Your task to perform on an android device: change text size in settings app Image 0: 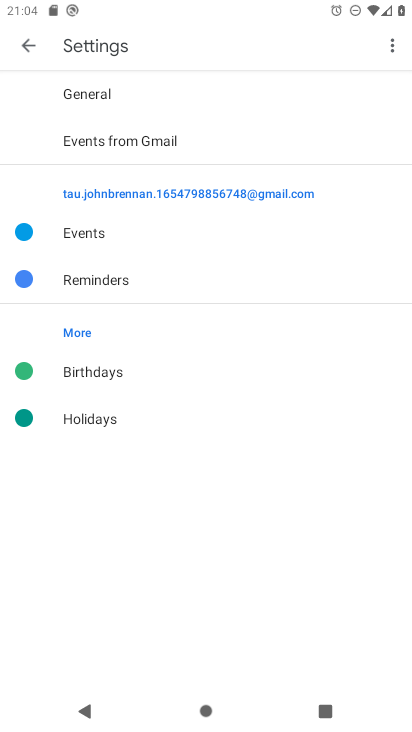
Step 0: press home button
Your task to perform on an android device: change text size in settings app Image 1: 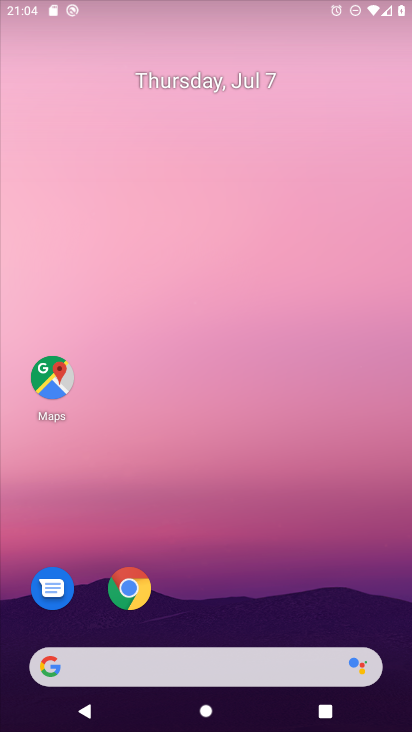
Step 1: drag from (219, 584) to (214, 154)
Your task to perform on an android device: change text size in settings app Image 2: 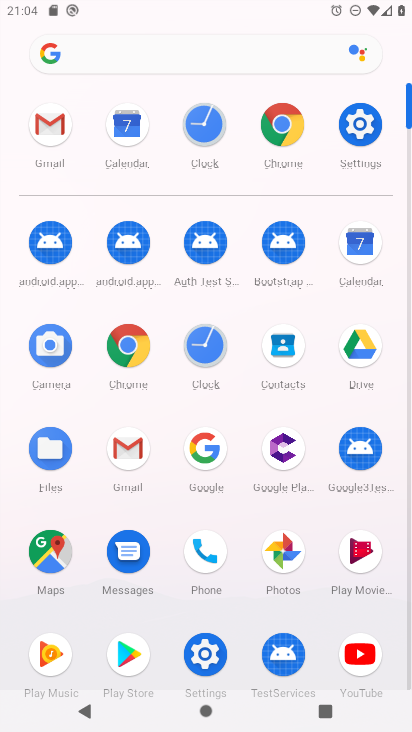
Step 2: click (352, 113)
Your task to perform on an android device: change text size in settings app Image 3: 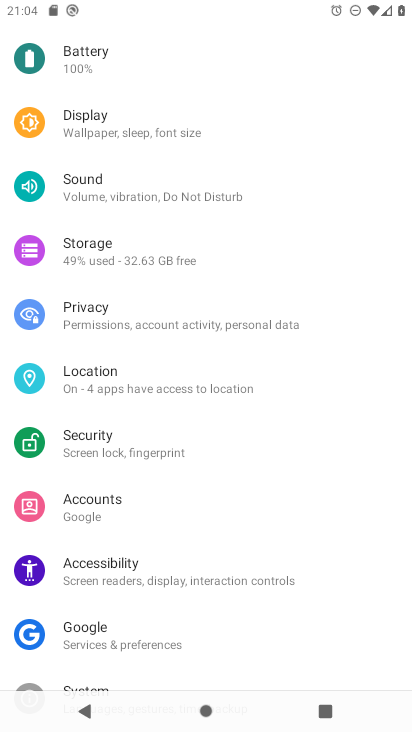
Step 3: drag from (205, 620) to (188, 181)
Your task to perform on an android device: change text size in settings app Image 4: 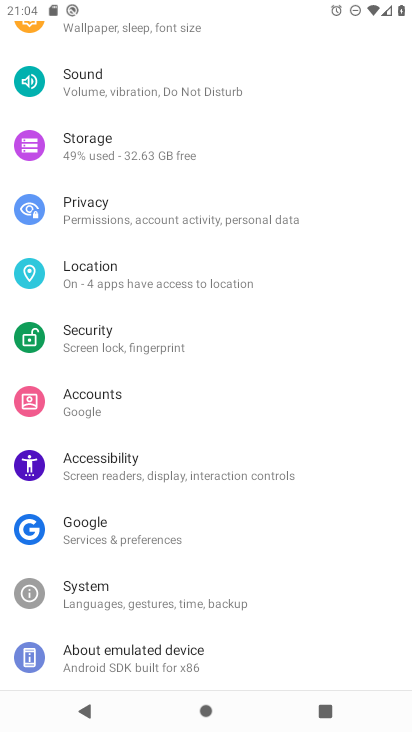
Step 4: click (144, 461)
Your task to perform on an android device: change text size in settings app Image 5: 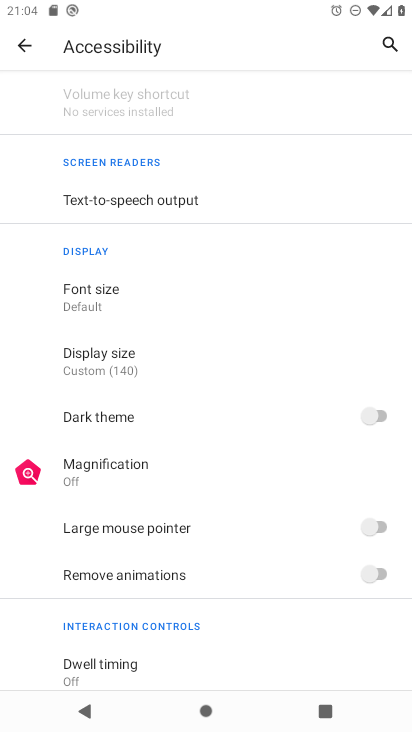
Step 5: click (146, 306)
Your task to perform on an android device: change text size in settings app Image 6: 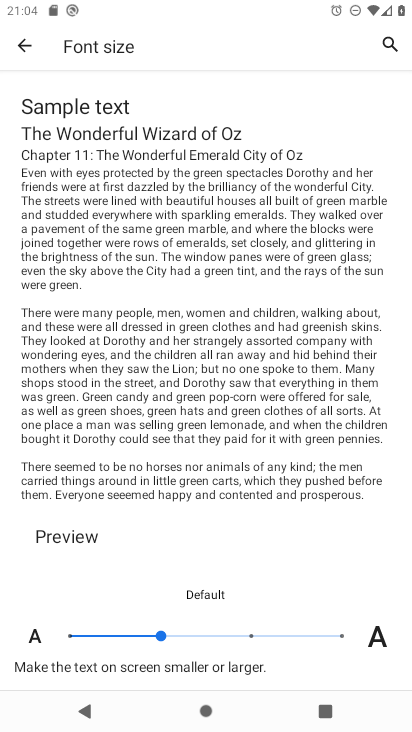
Step 6: click (230, 633)
Your task to perform on an android device: change text size in settings app Image 7: 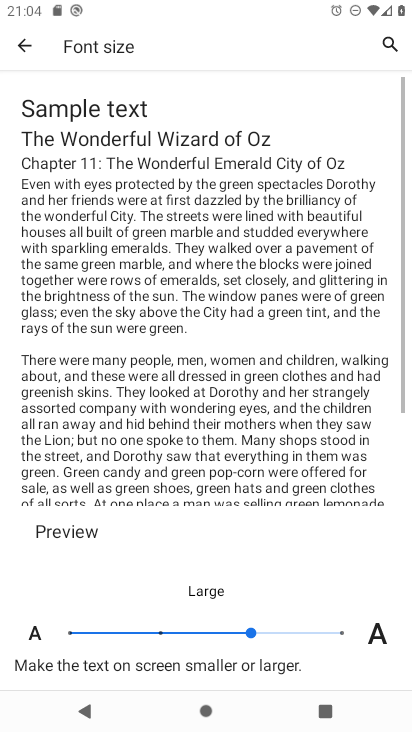
Step 7: task complete